Your task to perform on an android device: Open calendar and show me the first week of next month Image 0: 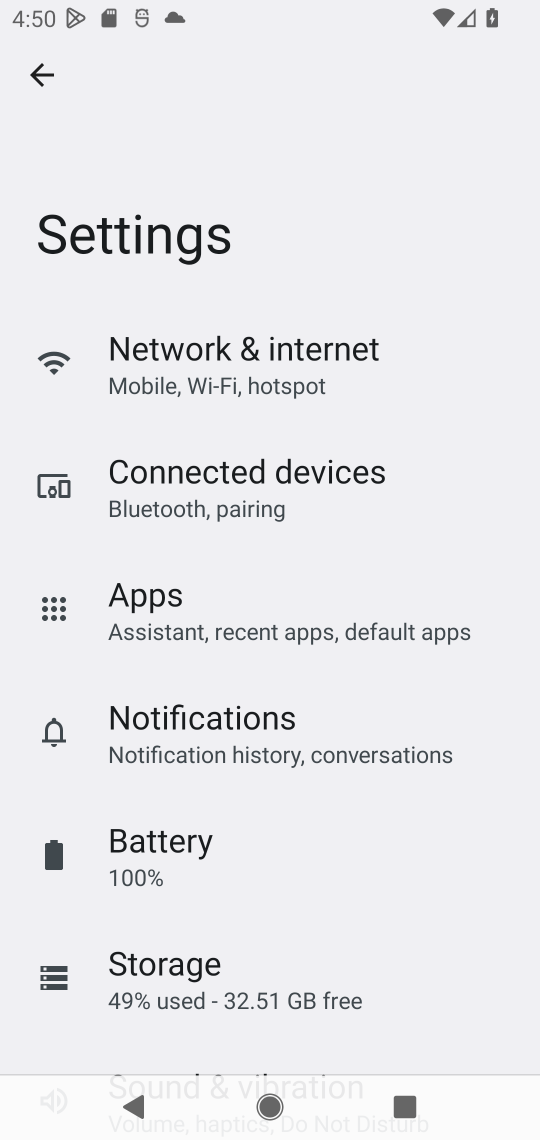
Step 0: press home button
Your task to perform on an android device: Open calendar and show me the first week of next month Image 1: 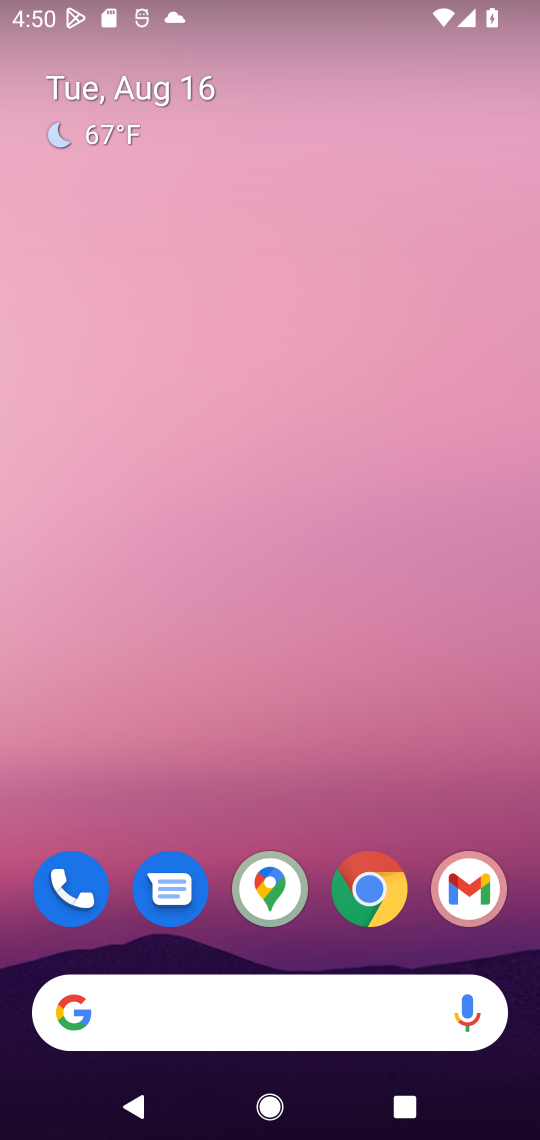
Step 1: task complete